Your task to perform on an android device: refresh tabs in the chrome app Image 0: 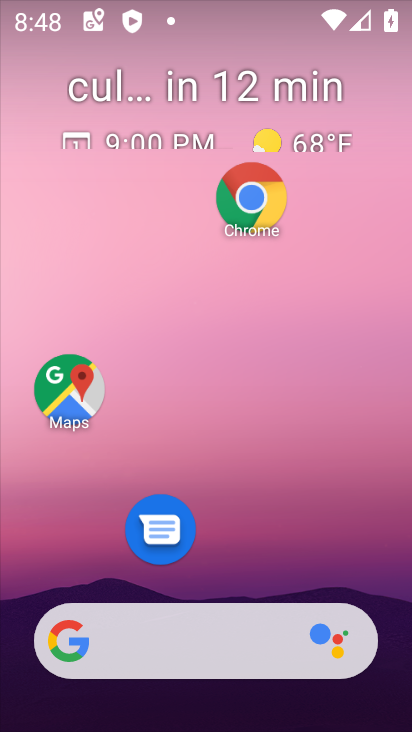
Step 0: click (250, 214)
Your task to perform on an android device: refresh tabs in the chrome app Image 1: 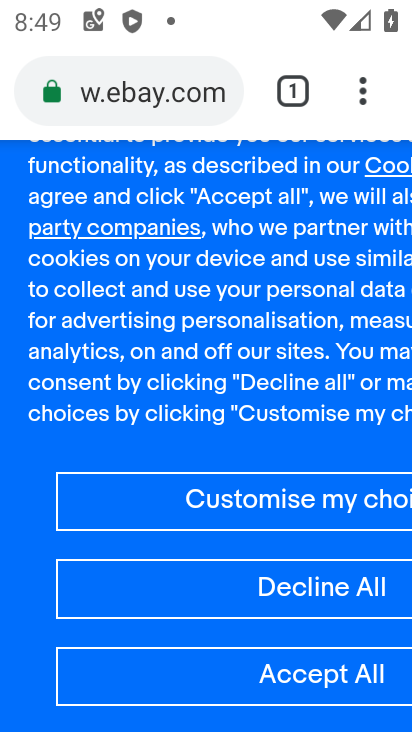
Step 1: drag from (358, 85) to (405, 102)
Your task to perform on an android device: refresh tabs in the chrome app Image 2: 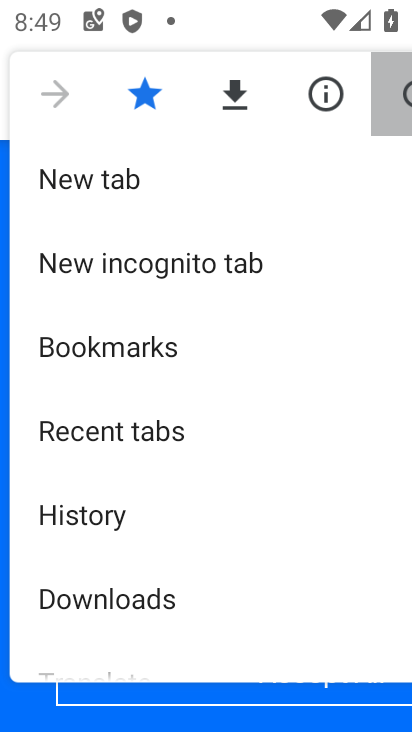
Step 2: click (405, 102)
Your task to perform on an android device: refresh tabs in the chrome app Image 3: 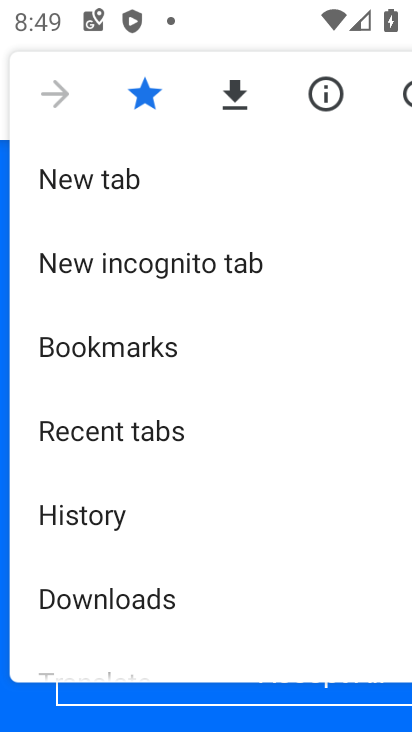
Step 3: click (405, 92)
Your task to perform on an android device: refresh tabs in the chrome app Image 4: 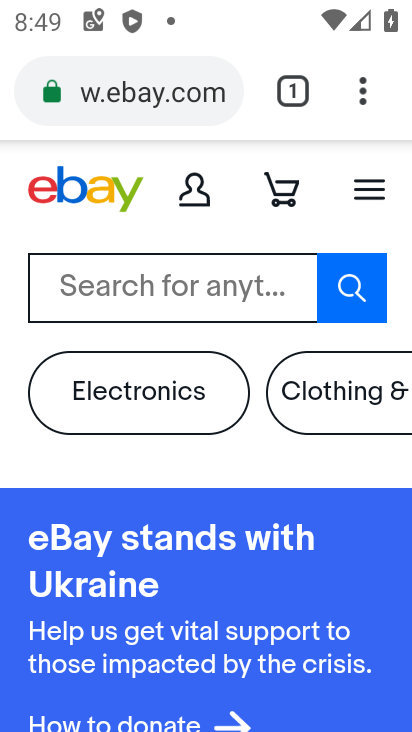
Step 4: task complete